Your task to perform on an android device: toggle priority inbox in the gmail app Image 0: 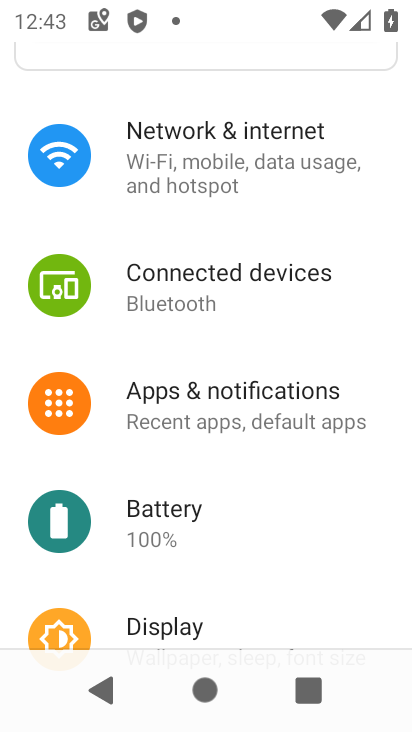
Step 0: press home button
Your task to perform on an android device: toggle priority inbox in the gmail app Image 1: 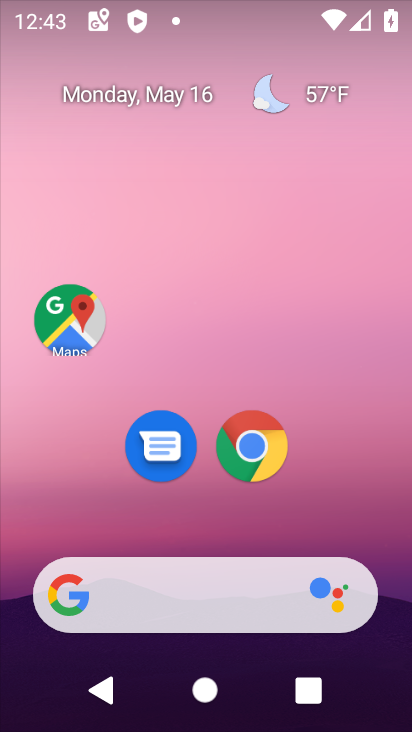
Step 1: drag from (313, 479) to (249, 136)
Your task to perform on an android device: toggle priority inbox in the gmail app Image 2: 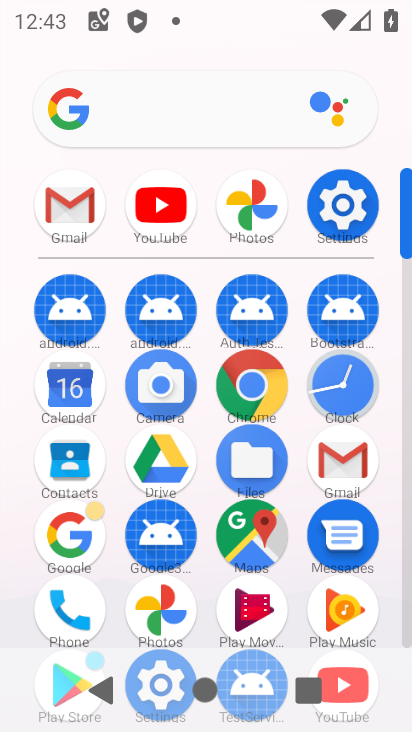
Step 2: click (59, 200)
Your task to perform on an android device: toggle priority inbox in the gmail app Image 3: 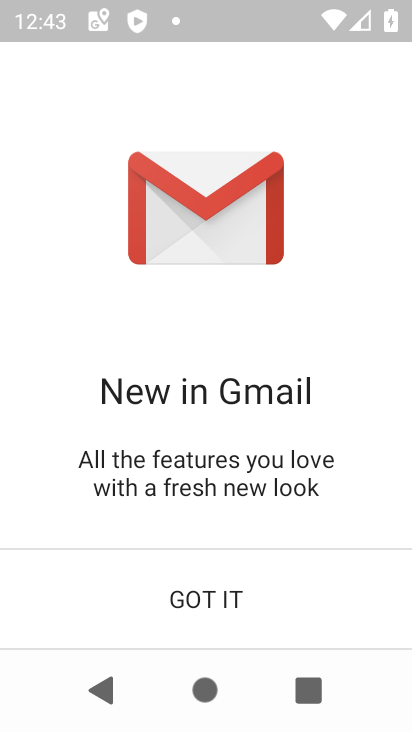
Step 3: task complete